Your task to perform on an android device: Toggle the flashlight Image 0: 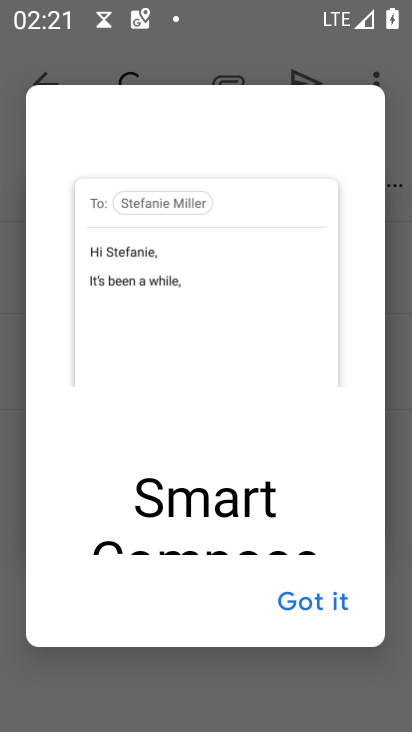
Step 0: press home button
Your task to perform on an android device: Toggle the flashlight Image 1: 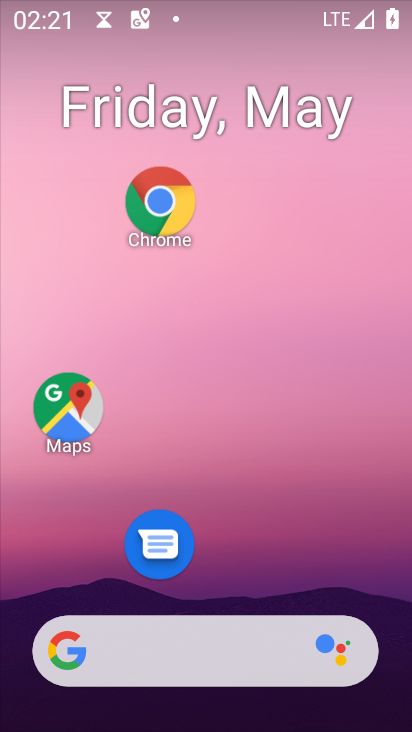
Step 1: drag from (324, 540) to (240, 96)
Your task to perform on an android device: Toggle the flashlight Image 2: 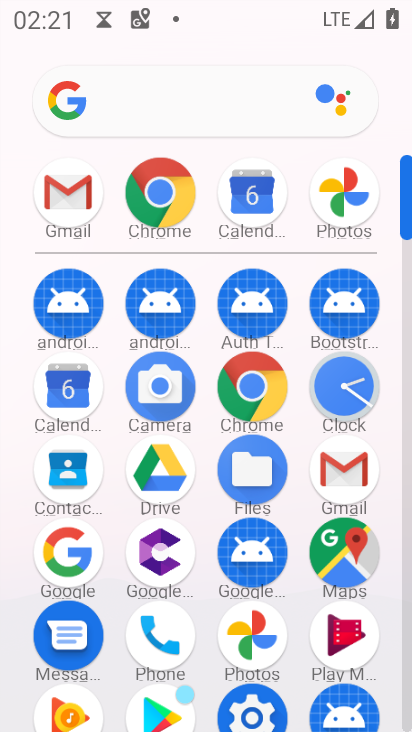
Step 2: drag from (197, 263) to (174, 28)
Your task to perform on an android device: Toggle the flashlight Image 3: 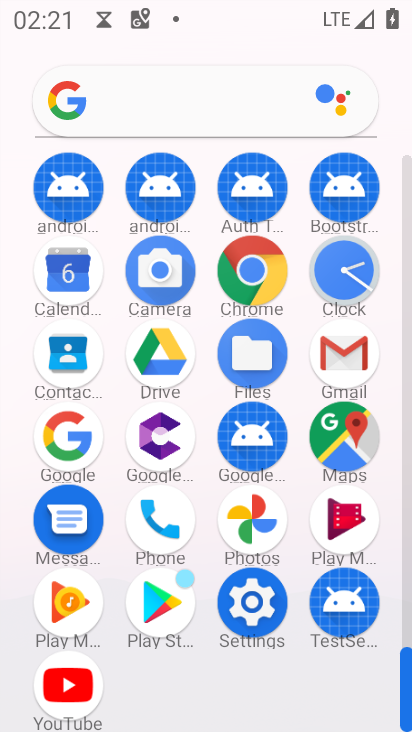
Step 3: click (270, 606)
Your task to perform on an android device: Toggle the flashlight Image 4: 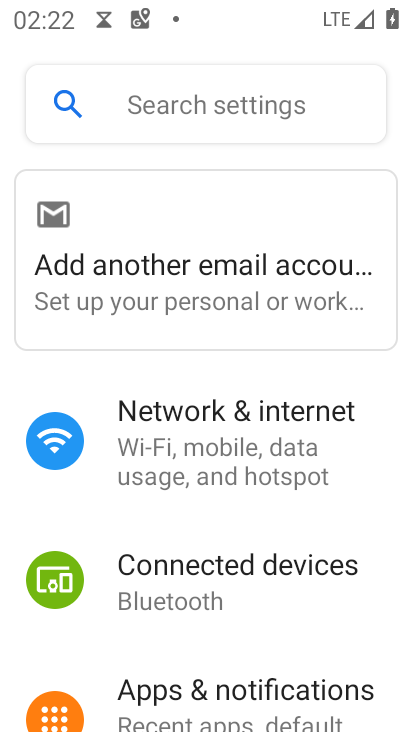
Step 4: task complete